Your task to perform on an android device: Open network settings Image 0: 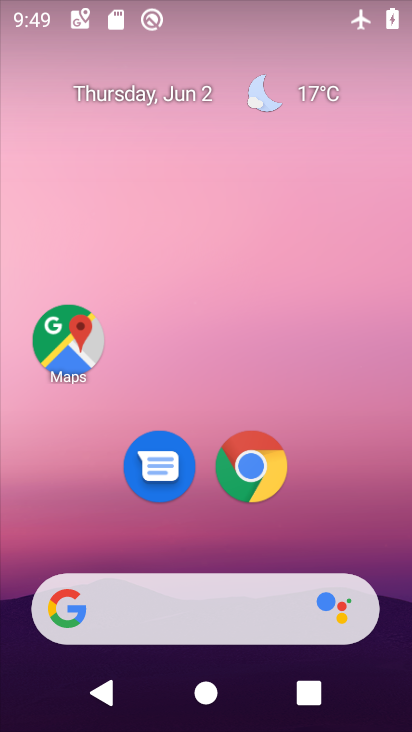
Step 0: drag from (202, 520) to (215, 1)
Your task to perform on an android device: Open network settings Image 1: 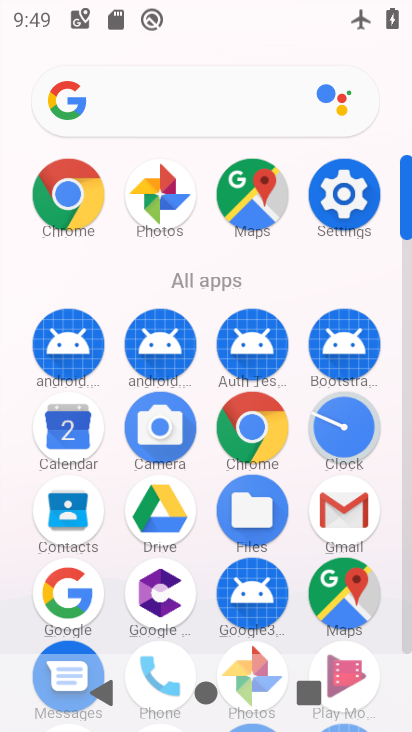
Step 1: click (325, 210)
Your task to perform on an android device: Open network settings Image 2: 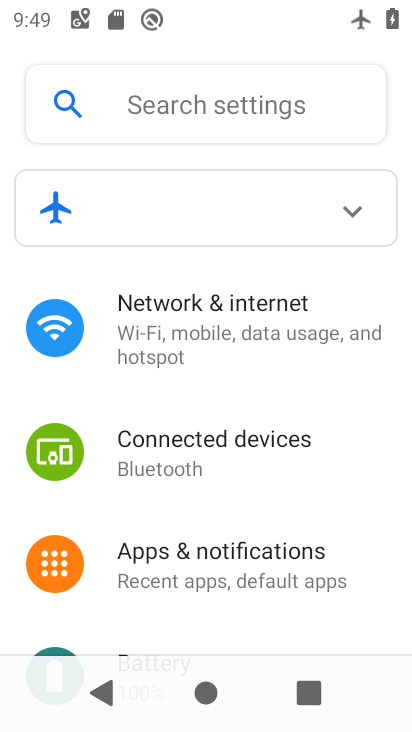
Step 2: click (204, 316)
Your task to perform on an android device: Open network settings Image 3: 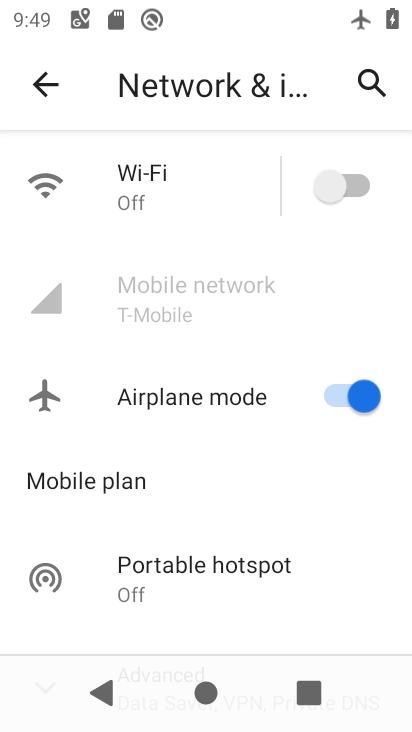
Step 3: task complete